Your task to perform on an android device: Show me recent news Image 0: 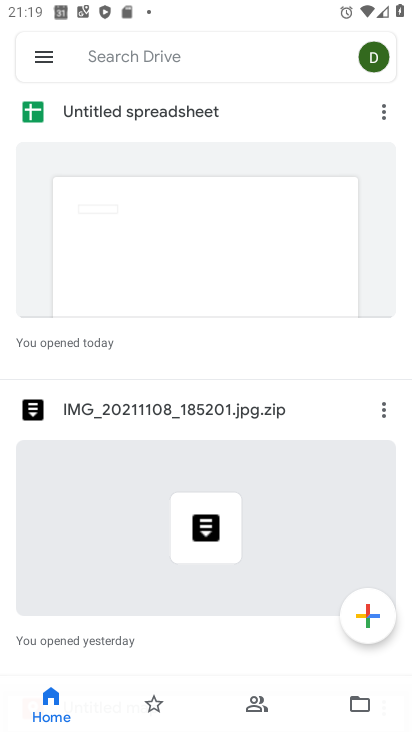
Step 0: press home button
Your task to perform on an android device: Show me recent news Image 1: 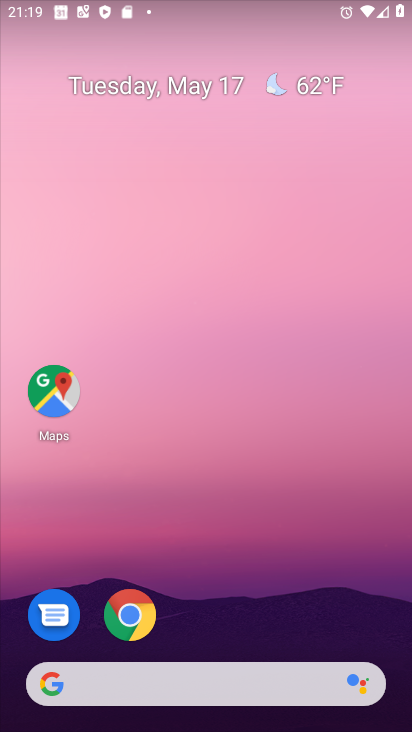
Step 1: click (132, 621)
Your task to perform on an android device: Show me recent news Image 2: 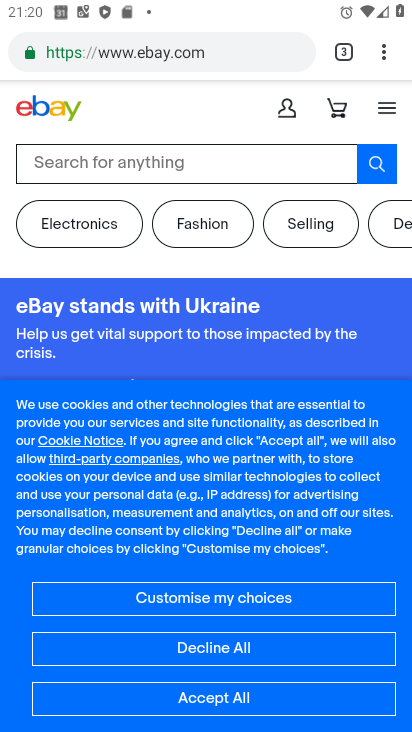
Step 2: press home button
Your task to perform on an android device: Show me recent news Image 3: 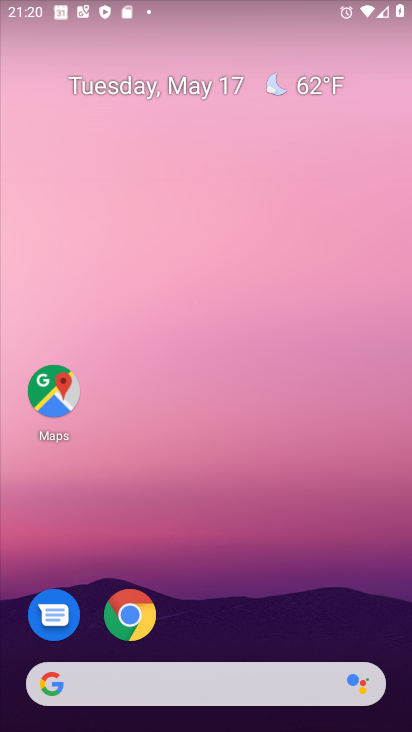
Step 3: click (135, 612)
Your task to perform on an android device: Show me recent news Image 4: 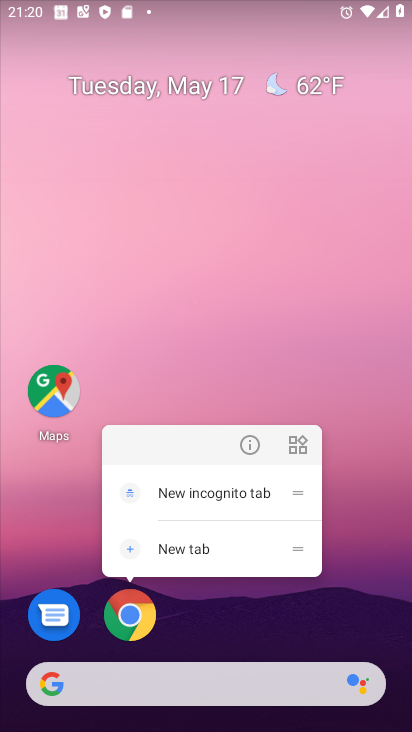
Step 4: click (128, 614)
Your task to perform on an android device: Show me recent news Image 5: 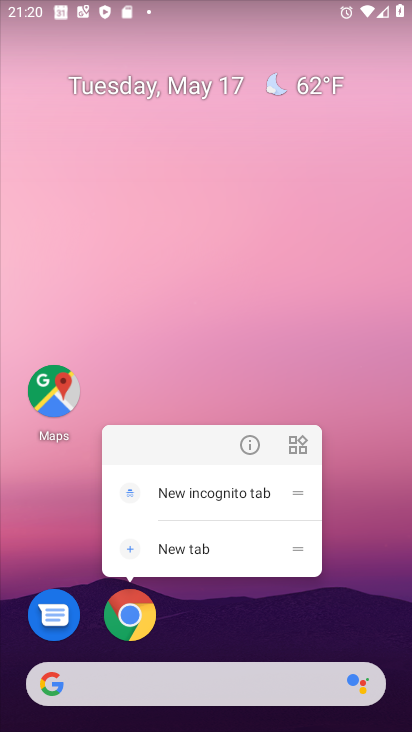
Step 5: click (128, 614)
Your task to perform on an android device: Show me recent news Image 6: 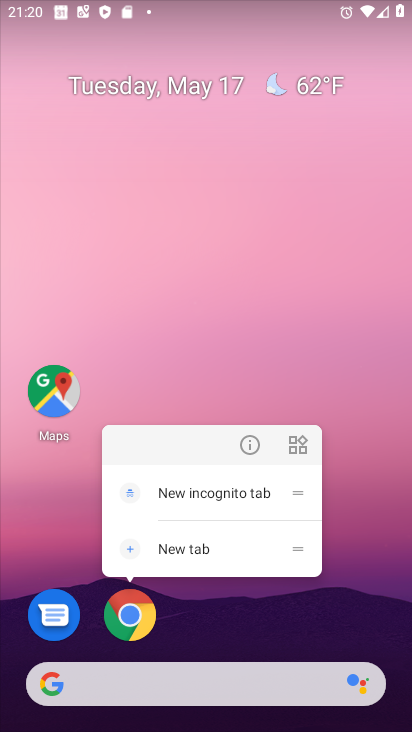
Step 6: click (128, 614)
Your task to perform on an android device: Show me recent news Image 7: 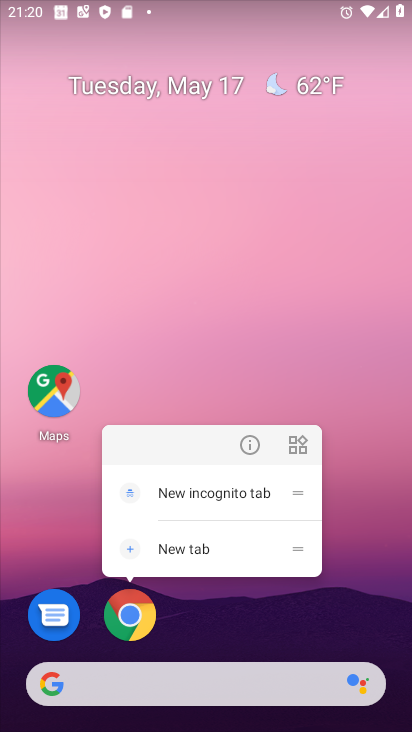
Step 7: click (128, 614)
Your task to perform on an android device: Show me recent news Image 8: 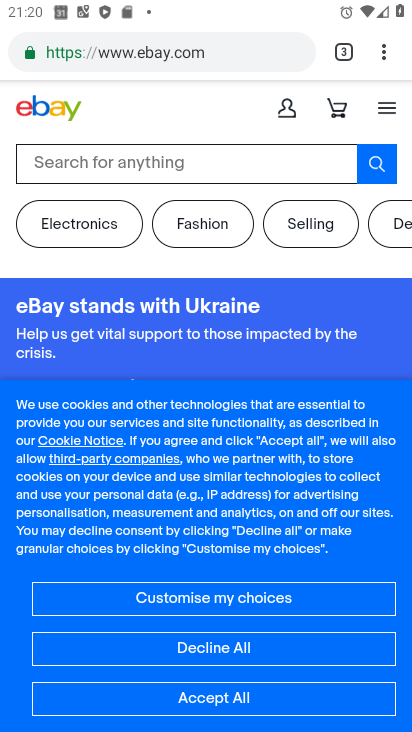
Step 8: click (167, 54)
Your task to perform on an android device: Show me recent news Image 9: 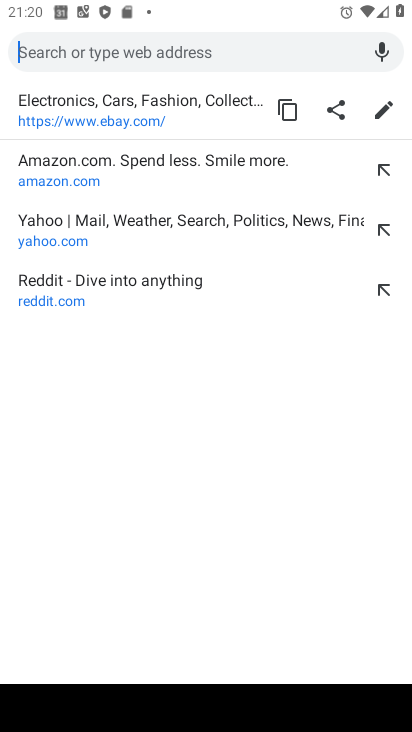
Step 9: type "Show me recent news"
Your task to perform on an android device: Show me recent news Image 10: 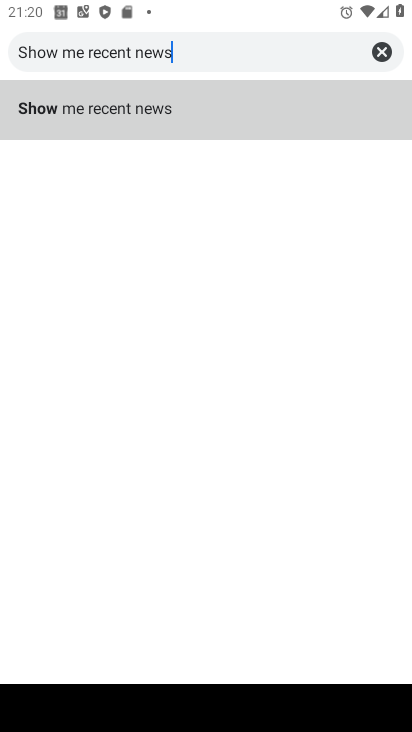
Step 10: click (139, 105)
Your task to perform on an android device: Show me recent news Image 11: 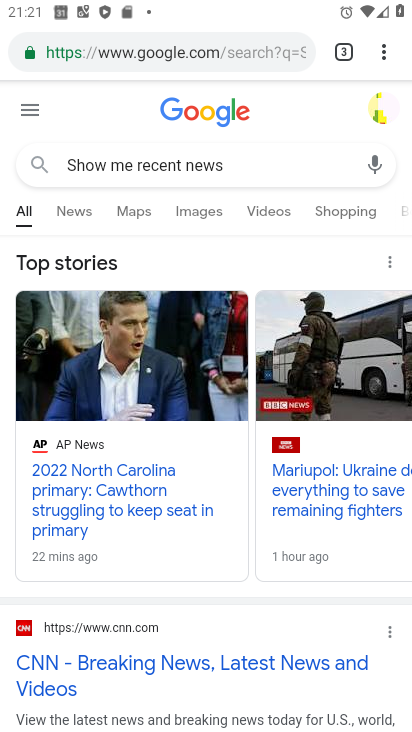
Step 11: click (71, 209)
Your task to perform on an android device: Show me recent news Image 12: 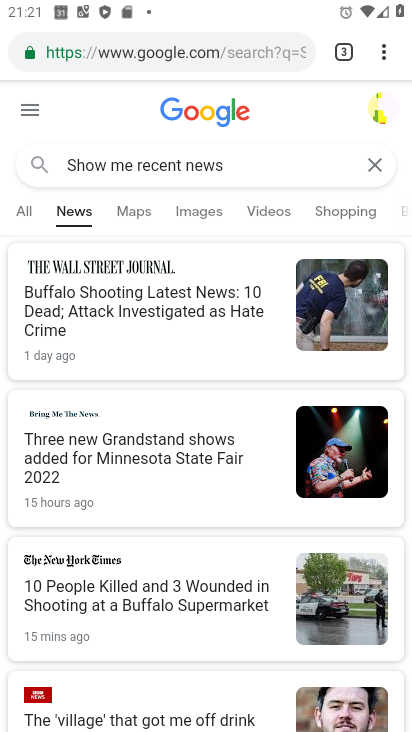
Step 12: task complete